Your task to perform on an android device: stop showing notifications on the lock screen Image 0: 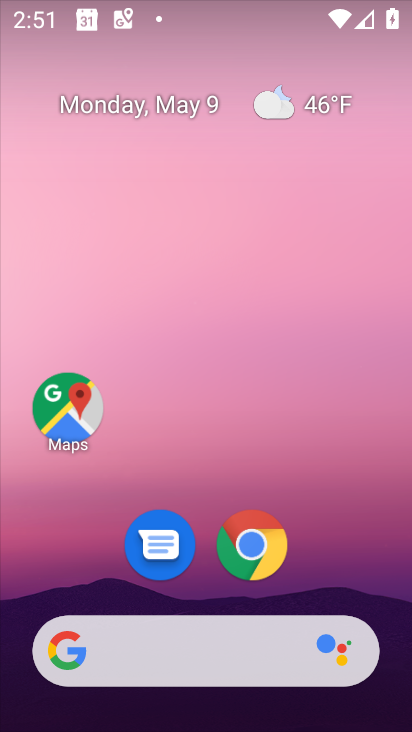
Step 0: drag from (211, 593) to (246, 248)
Your task to perform on an android device: stop showing notifications on the lock screen Image 1: 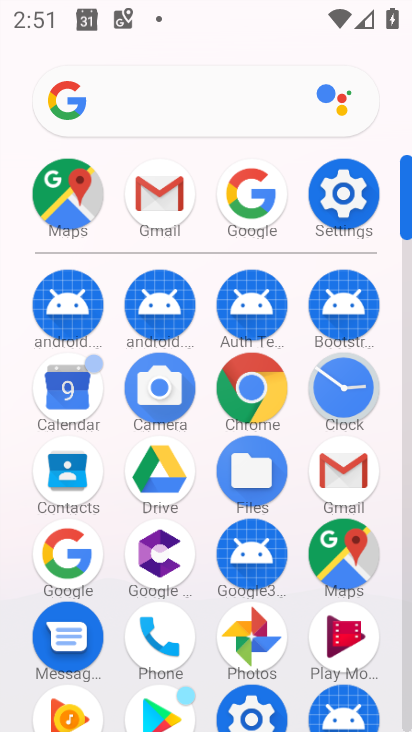
Step 1: click (333, 203)
Your task to perform on an android device: stop showing notifications on the lock screen Image 2: 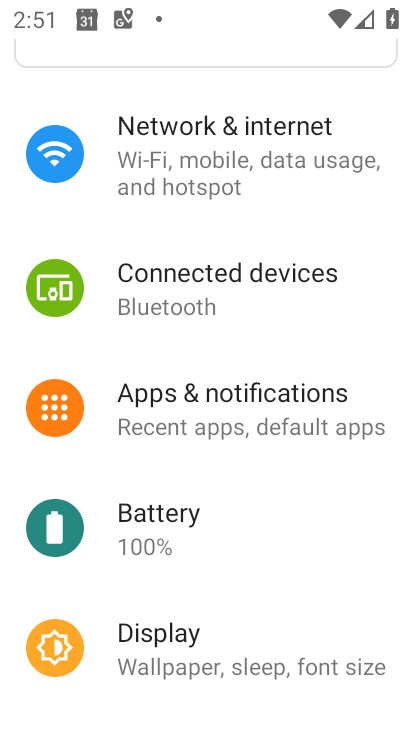
Step 2: click (297, 432)
Your task to perform on an android device: stop showing notifications on the lock screen Image 3: 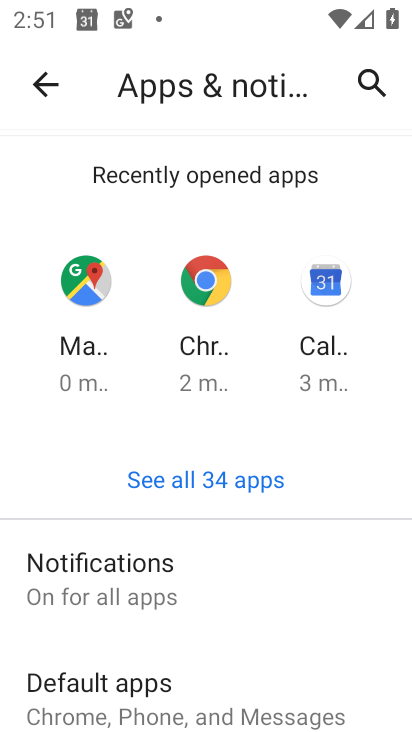
Step 3: drag from (214, 689) to (245, 434)
Your task to perform on an android device: stop showing notifications on the lock screen Image 4: 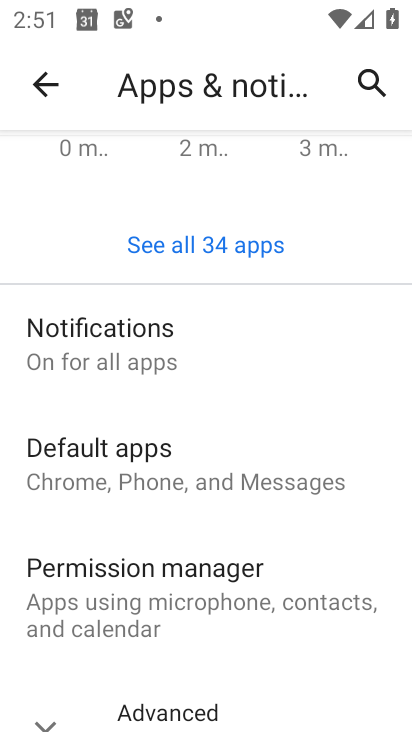
Step 4: drag from (246, 568) to (243, 438)
Your task to perform on an android device: stop showing notifications on the lock screen Image 5: 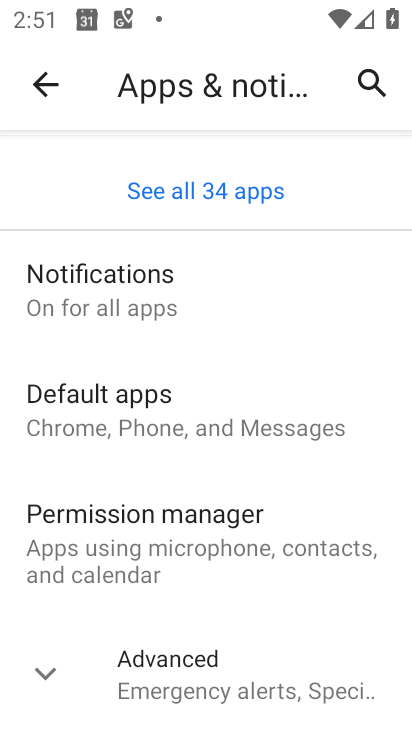
Step 5: click (180, 304)
Your task to perform on an android device: stop showing notifications on the lock screen Image 6: 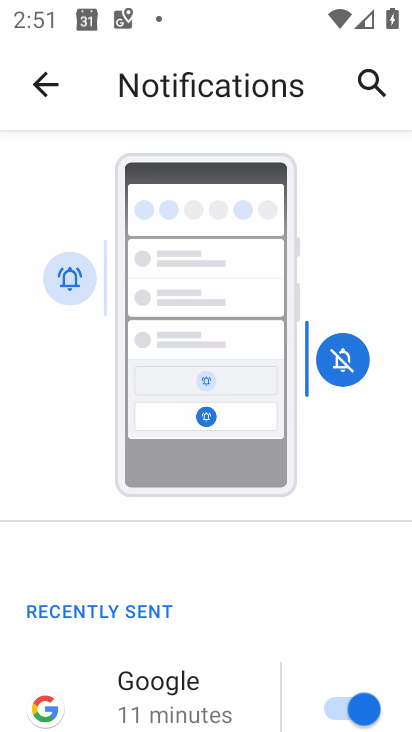
Step 6: drag from (203, 694) to (223, 351)
Your task to perform on an android device: stop showing notifications on the lock screen Image 7: 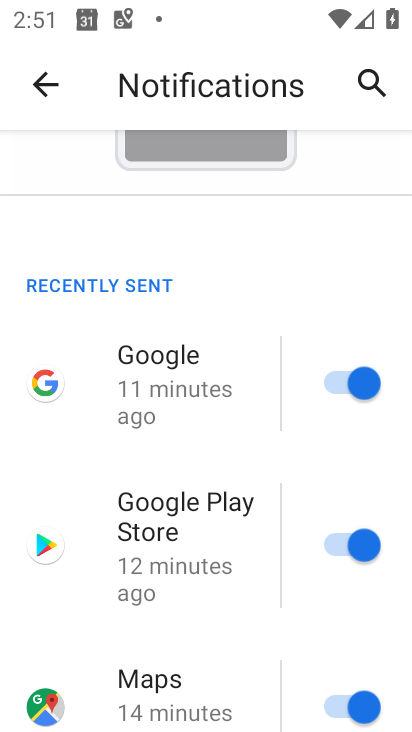
Step 7: drag from (215, 599) to (266, 311)
Your task to perform on an android device: stop showing notifications on the lock screen Image 8: 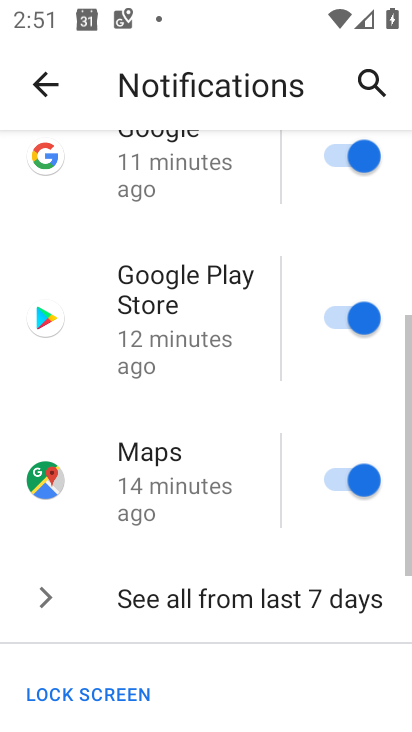
Step 8: drag from (185, 626) to (249, 397)
Your task to perform on an android device: stop showing notifications on the lock screen Image 9: 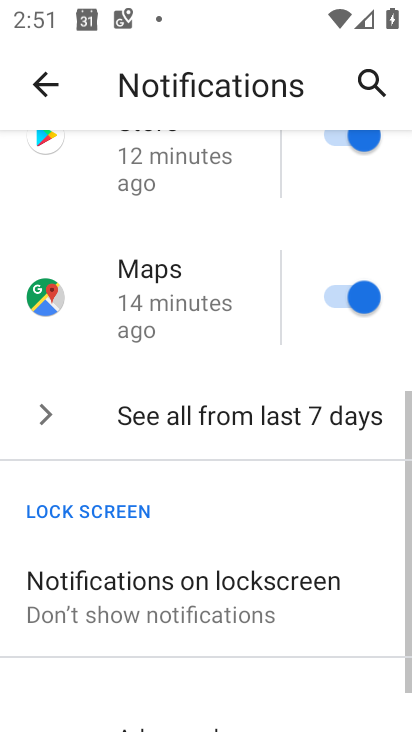
Step 9: drag from (250, 589) to (268, 502)
Your task to perform on an android device: stop showing notifications on the lock screen Image 10: 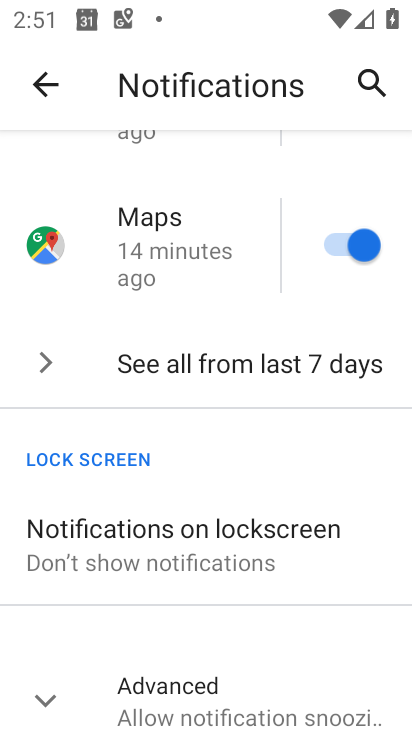
Step 10: click (255, 537)
Your task to perform on an android device: stop showing notifications on the lock screen Image 11: 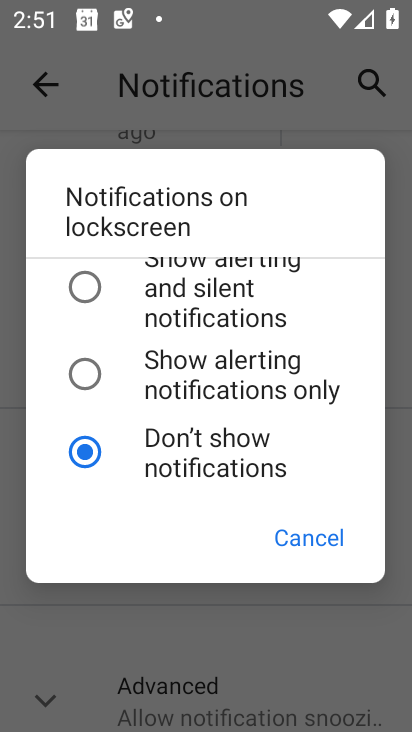
Step 11: task complete